Your task to perform on an android device: move a message to another label in the gmail app Image 0: 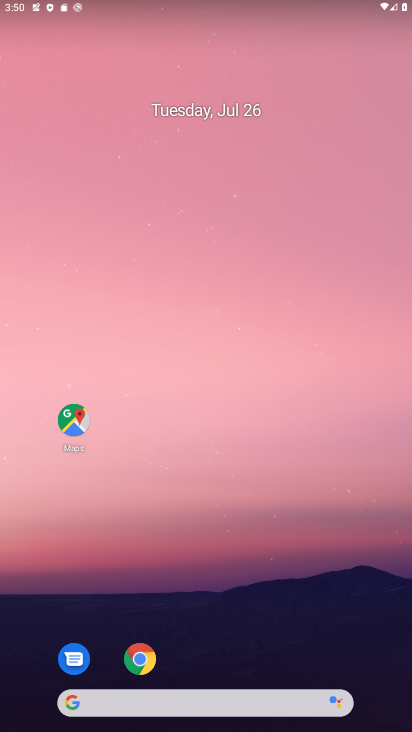
Step 0: drag from (210, 660) to (228, 247)
Your task to perform on an android device: move a message to another label in the gmail app Image 1: 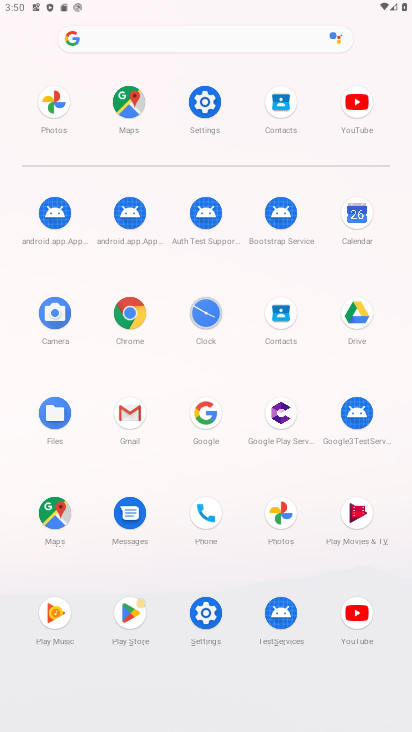
Step 1: click (128, 408)
Your task to perform on an android device: move a message to another label in the gmail app Image 2: 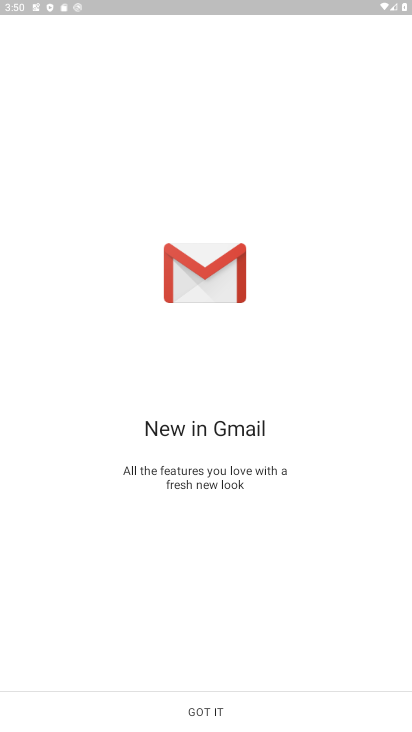
Step 2: click (275, 703)
Your task to perform on an android device: move a message to another label in the gmail app Image 3: 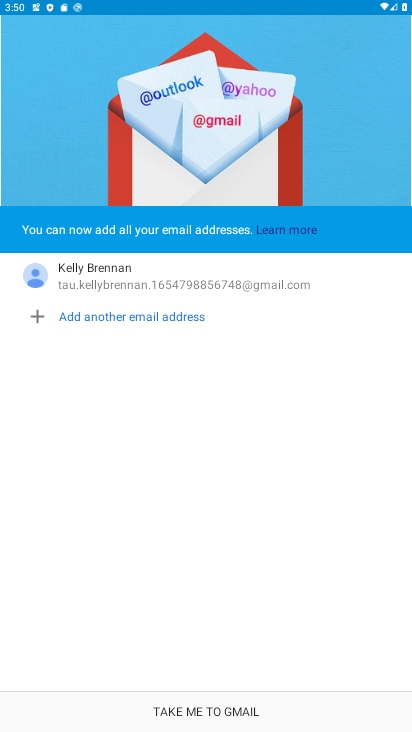
Step 3: click (272, 711)
Your task to perform on an android device: move a message to another label in the gmail app Image 4: 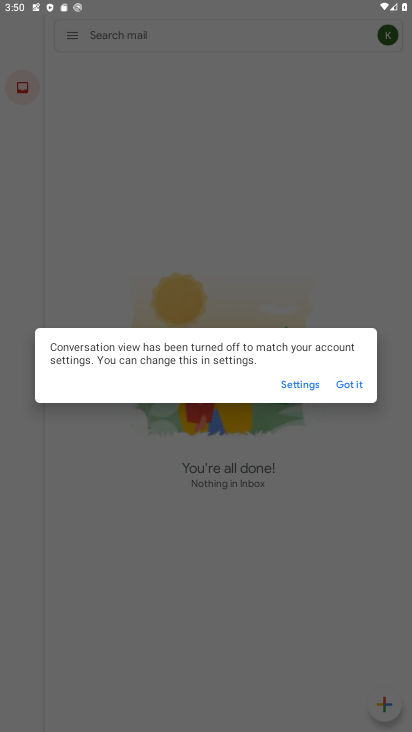
Step 4: click (340, 380)
Your task to perform on an android device: move a message to another label in the gmail app Image 5: 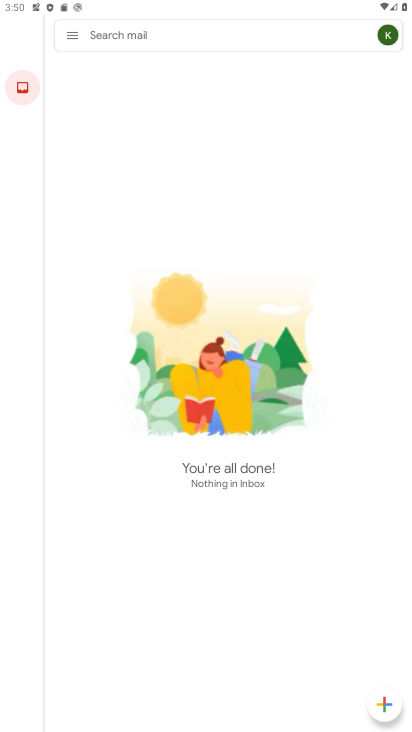
Step 5: click (75, 32)
Your task to perform on an android device: move a message to another label in the gmail app Image 6: 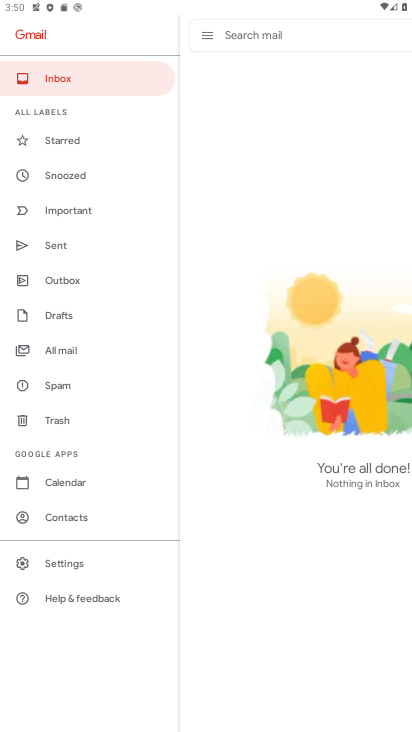
Step 6: click (67, 356)
Your task to perform on an android device: move a message to another label in the gmail app Image 7: 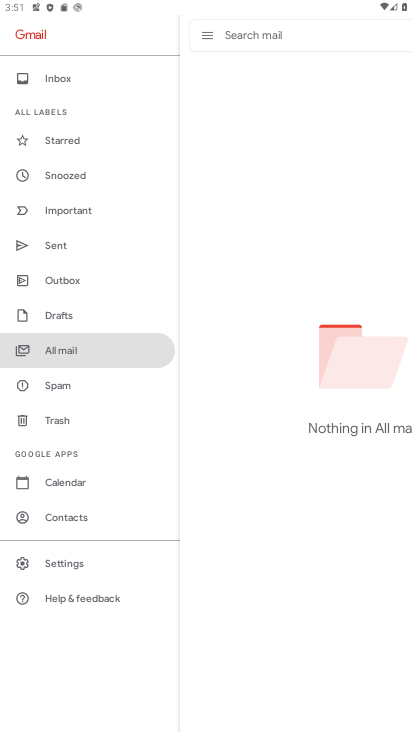
Step 7: task complete